Your task to perform on an android device: open app "Move to iOS" (install if not already installed) and go to login screen Image 0: 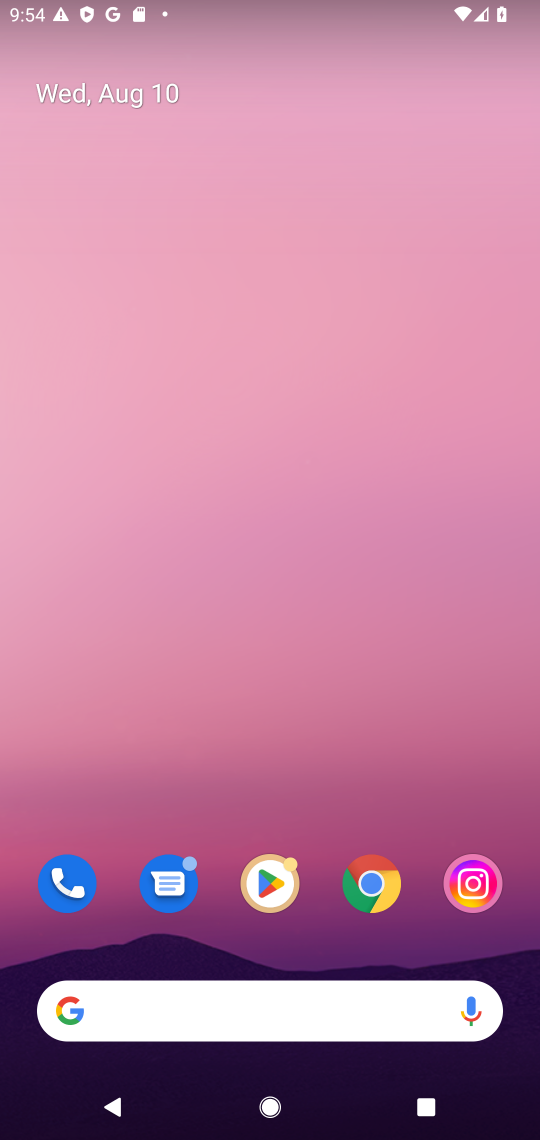
Step 0: drag from (458, 488) to (489, 50)
Your task to perform on an android device: open app "Move to iOS" (install if not already installed) and go to login screen Image 1: 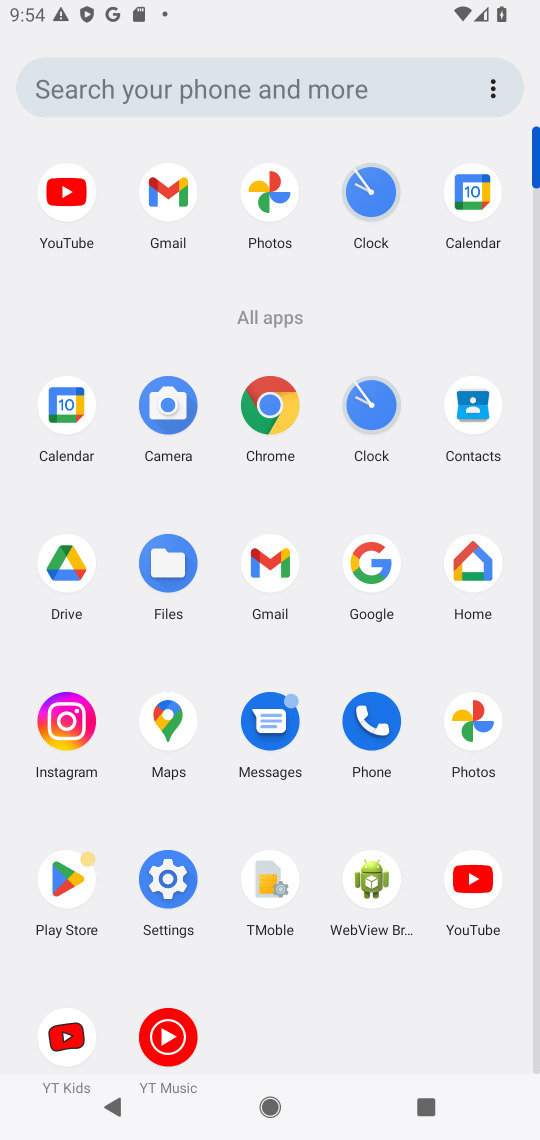
Step 1: click (65, 874)
Your task to perform on an android device: open app "Move to iOS" (install if not already installed) and go to login screen Image 2: 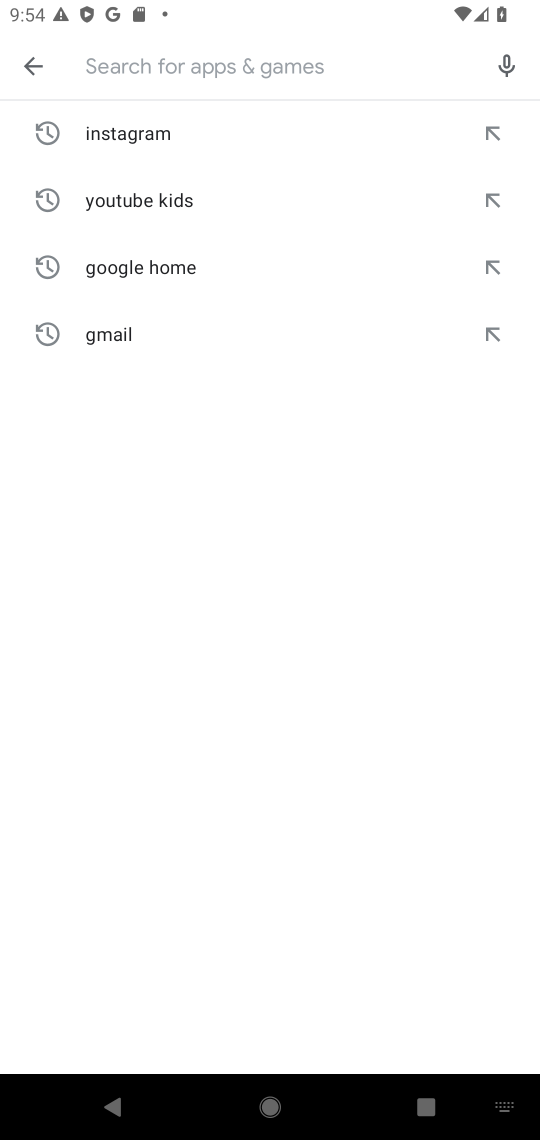
Step 2: click (311, 63)
Your task to perform on an android device: open app "Move to iOS" (install if not already installed) and go to login screen Image 3: 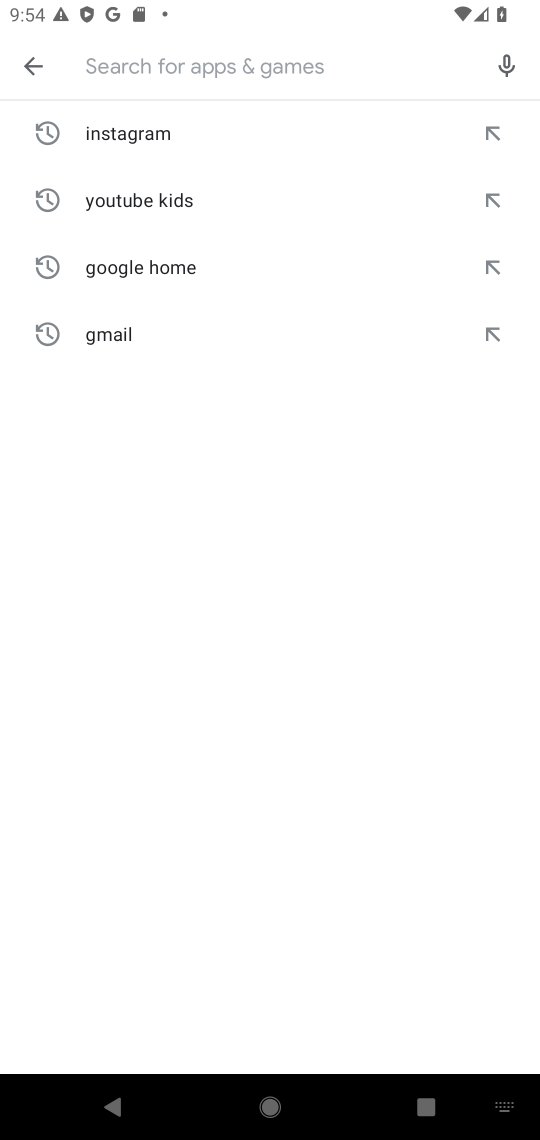
Step 3: press enter
Your task to perform on an android device: open app "Move to iOS" (install if not already installed) and go to login screen Image 4: 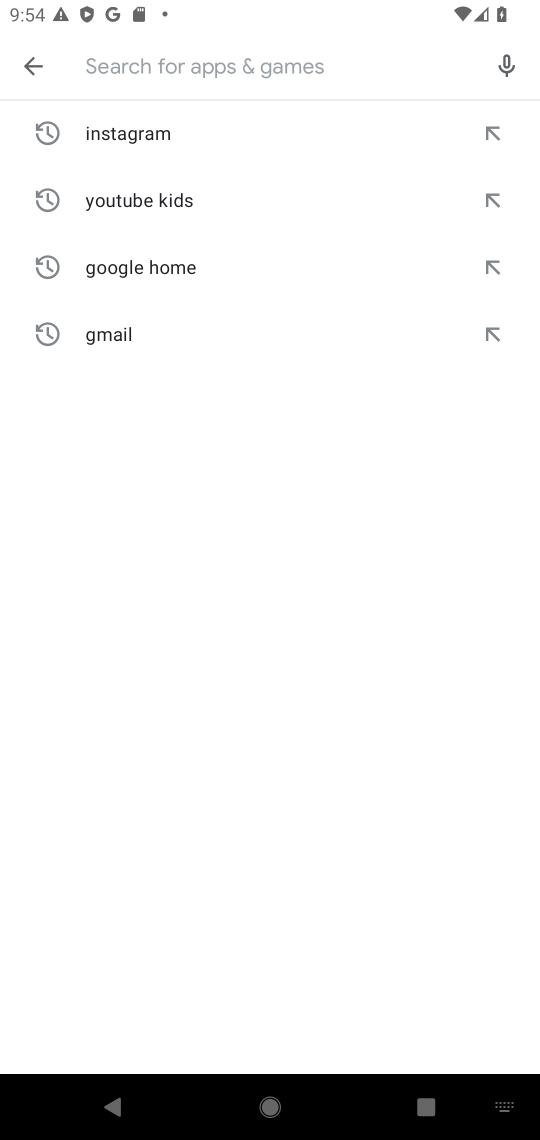
Step 4: type "move to ios"
Your task to perform on an android device: open app "Move to iOS" (install if not already installed) and go to login screen Image 5: 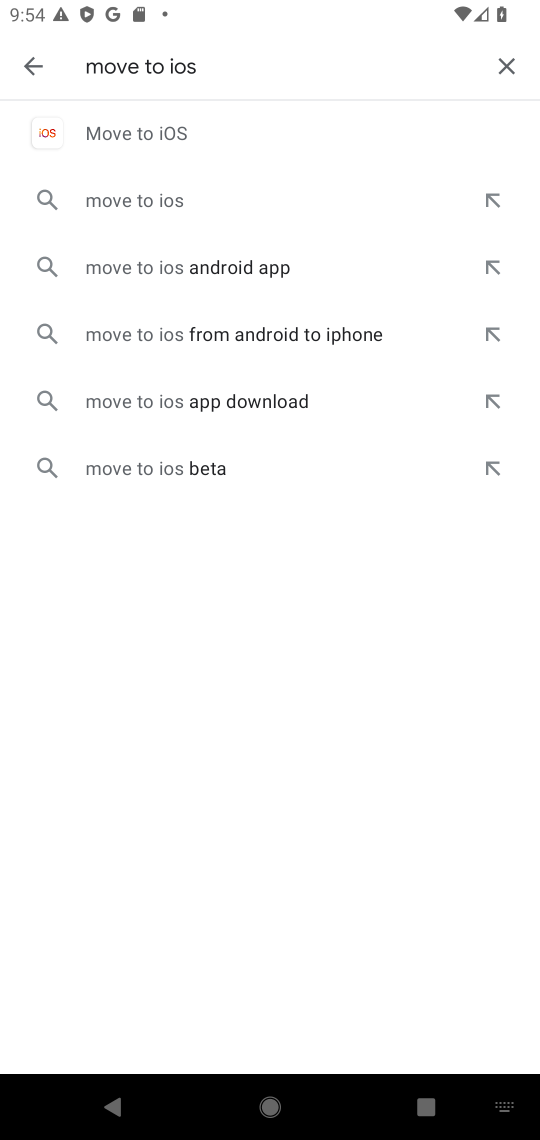
Step 5: click (213, 135)
Your task to perform on an android device: open app "Move to iOS" (install if not already installed) and go to login screen Image 6: 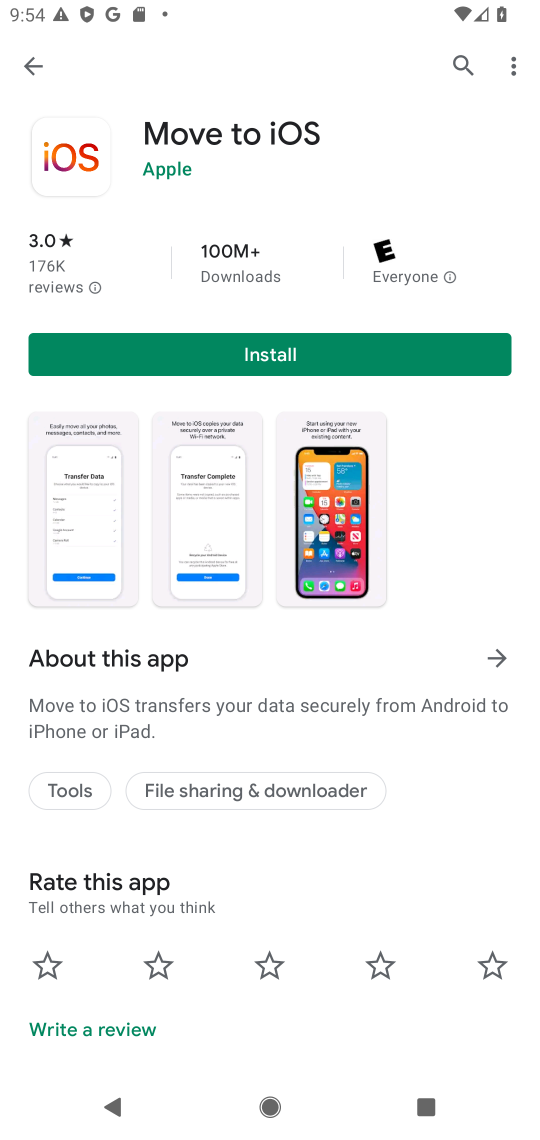
Step 6: click (406, 344)
Your task to perform on an android device: open app "Move to iOS" (install if not already installed) and go to login screen Image 7: 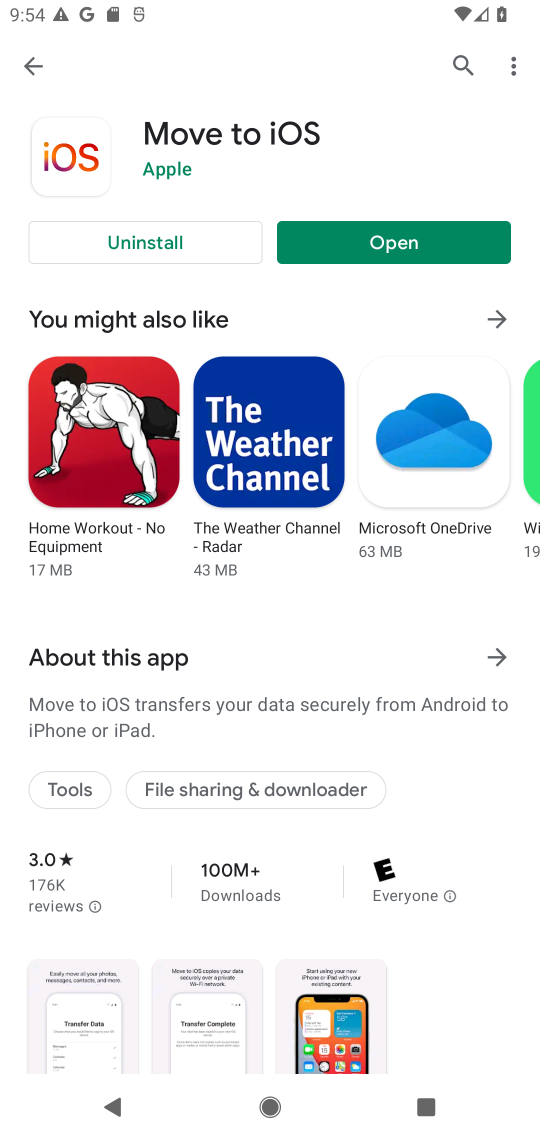
Step 7: click (443, 254)
Your task to perform on an android device: open app "Move to iOS" (install if not already installed) and go to login screen Image 8: 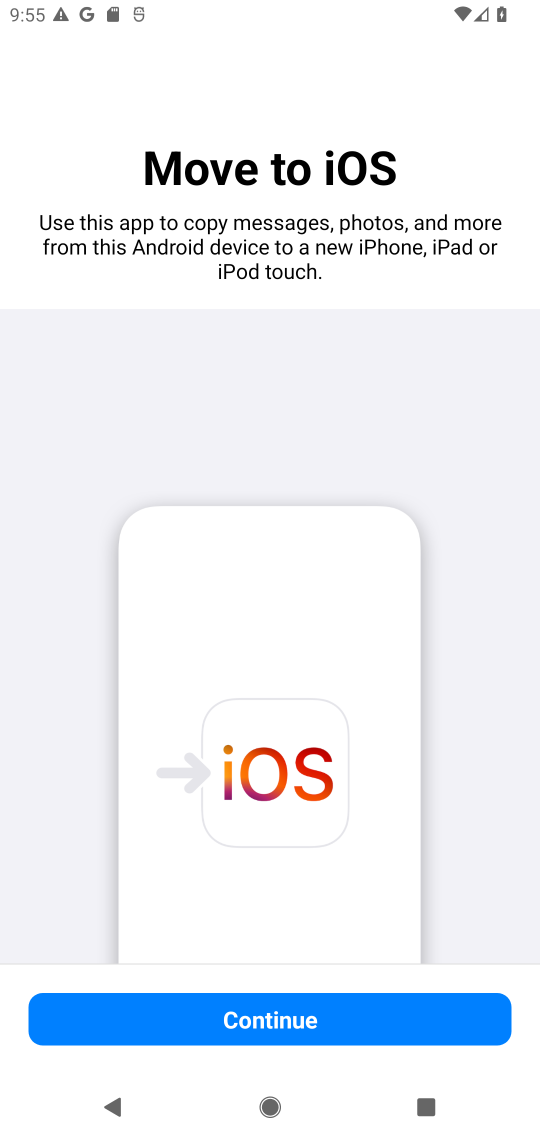
Step 8: click (381, 1014)
Your task to perform on an android device: open app "Move to iOS" (install if not already installed) and go to login screen Image 9: 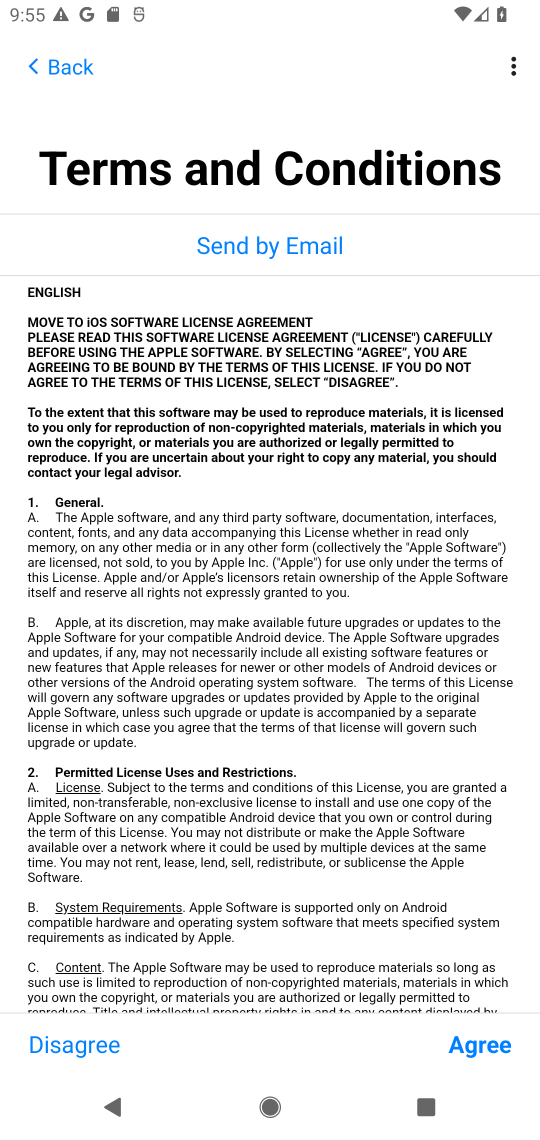
Step 9: click (484, 1042)
Your task to perform on an android device: open app "Move to iOS" (install if not already installed) and go to login screen Image 10: 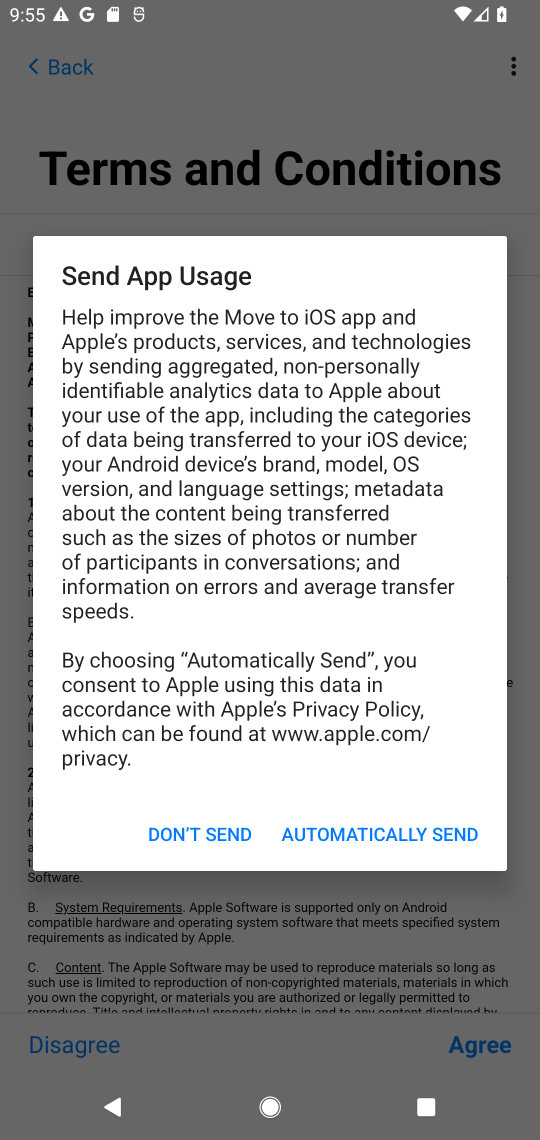
Step 10: click (221, 834)
Your task to perform on an android device: open app "Move to iOS" (install if not already installed) and go to login screen Image 11: 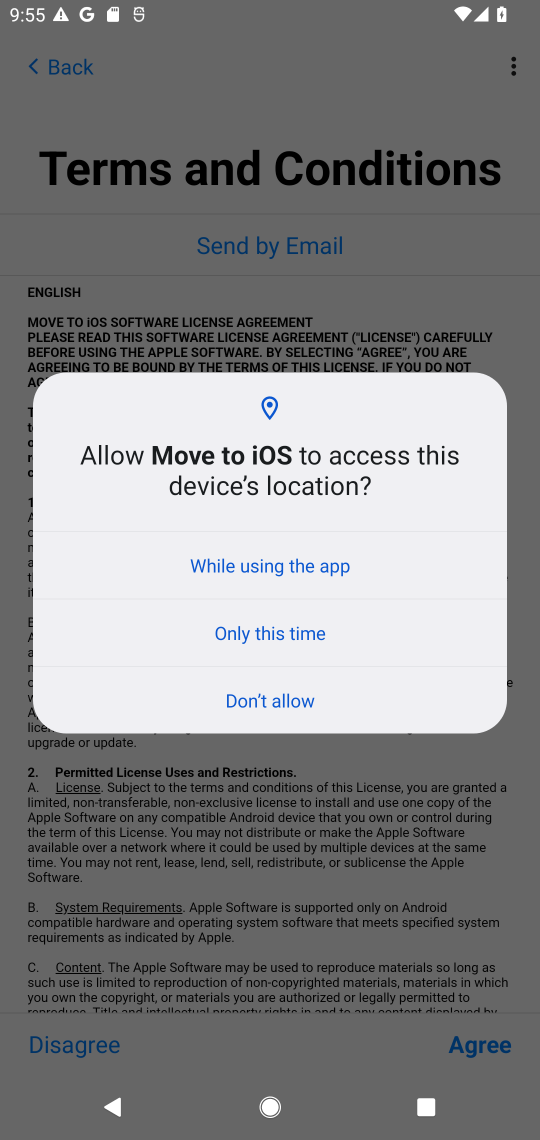
Step 11: click (312, 688)
Your task to perform on an android device: open app "Move to iOS" (install if not already installed) and go to login screen Image 12: 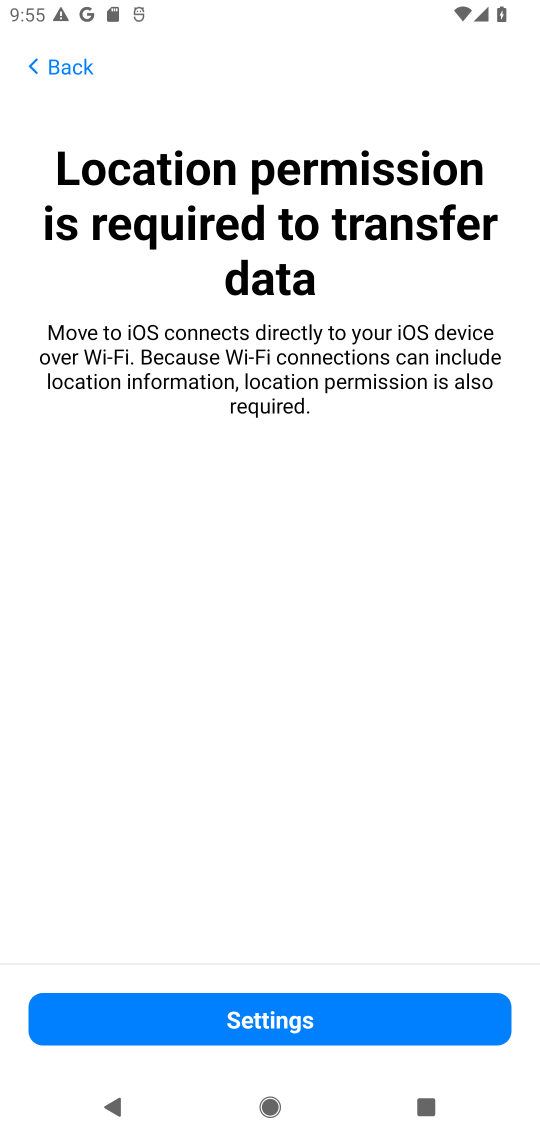
Step 12: task complete